Your task to perform on an android device: open app "Google Play Music" (install if not already installed) Image 0: 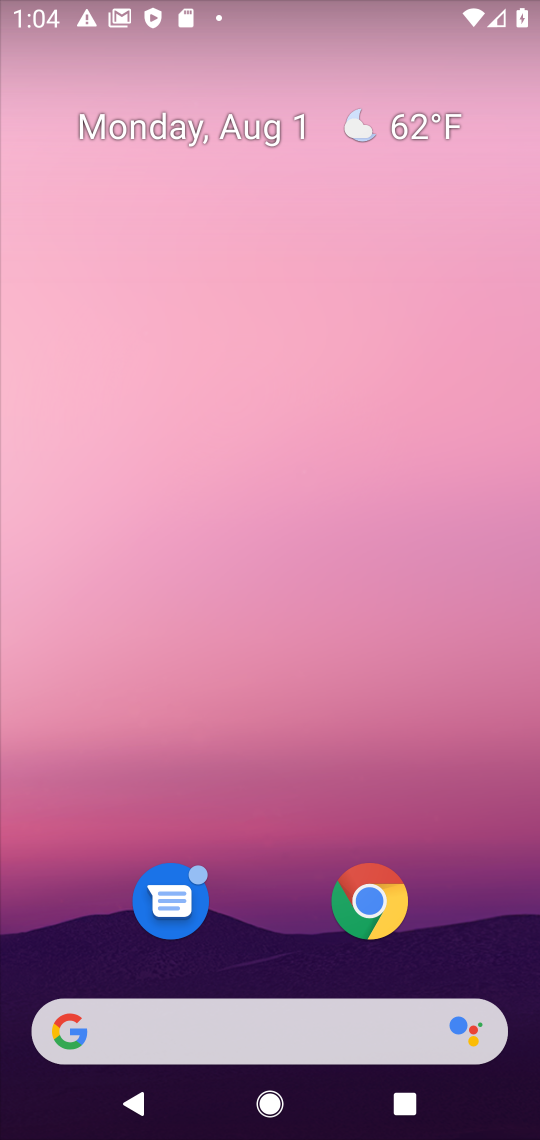
Step 0: drag from (286, 1030) to (272, 193)
Your task to perform on an android device: open app "Google Play Music" (install if not already installed) Image 1: 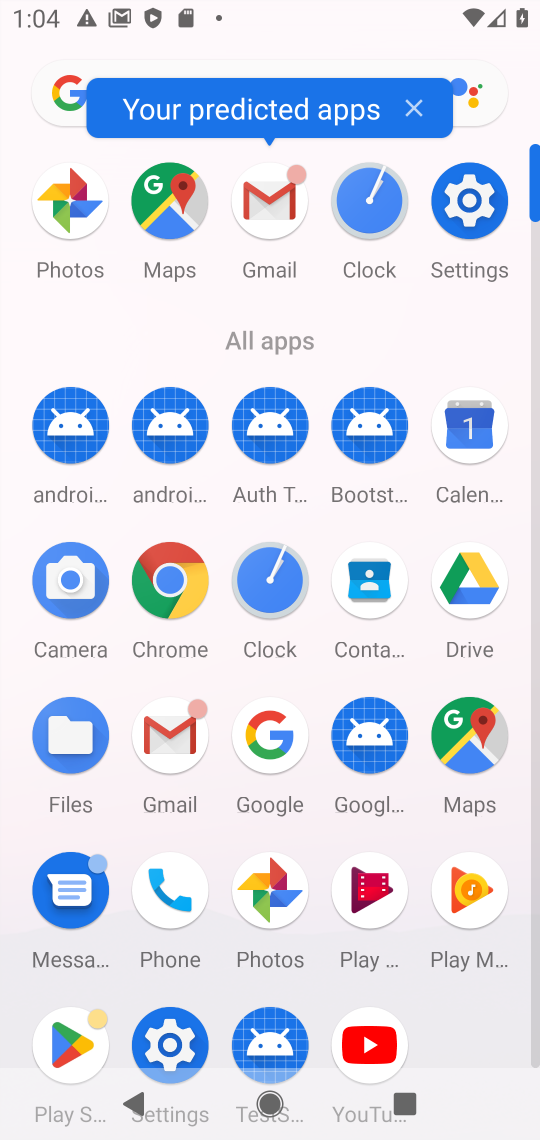
Step 1: click (84, 1043)
Your task to perform on an android device: open app "Google Play Music" (install if not already installed) Image 2: 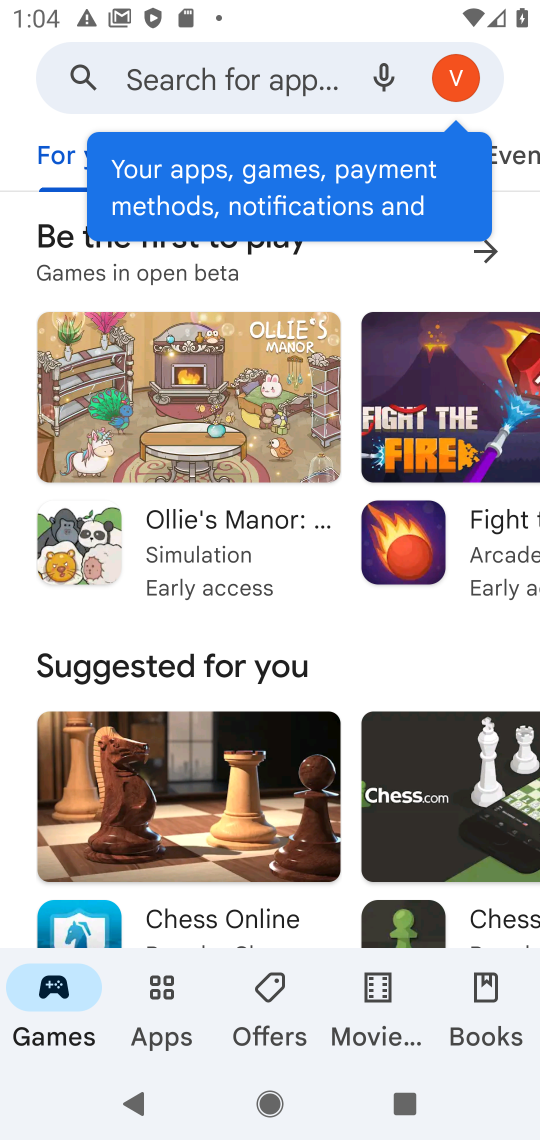
Step 2: click (249, 79)
Your task to perform on an android device: open app "Google Play Music" (install if not already installed) Image 3: 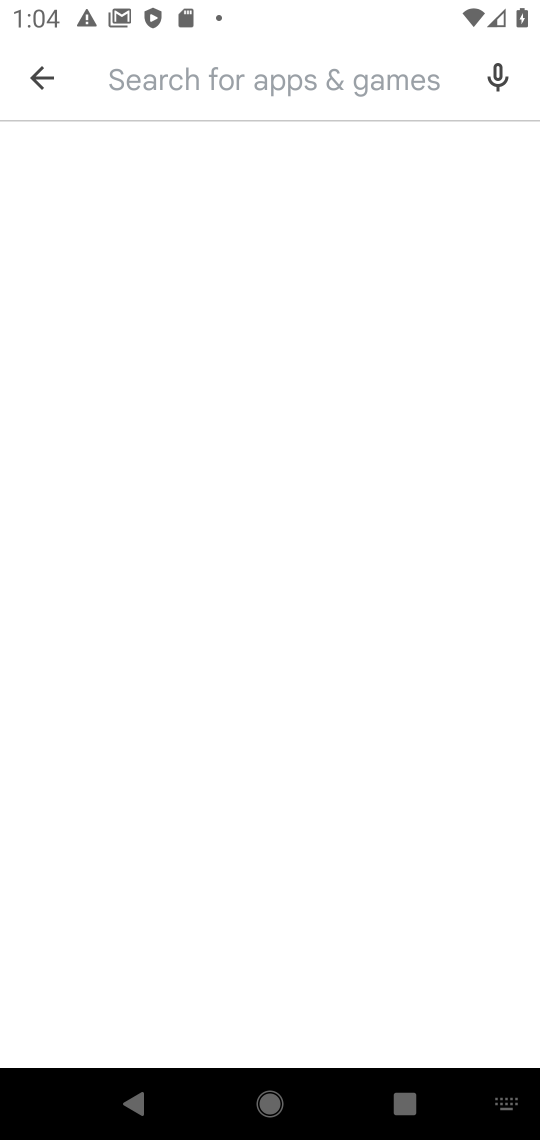
Step 3: type "Google Play Music"
Your task to perform on an android device: open app "Google Play Music" (install if not already installed) Image 4: 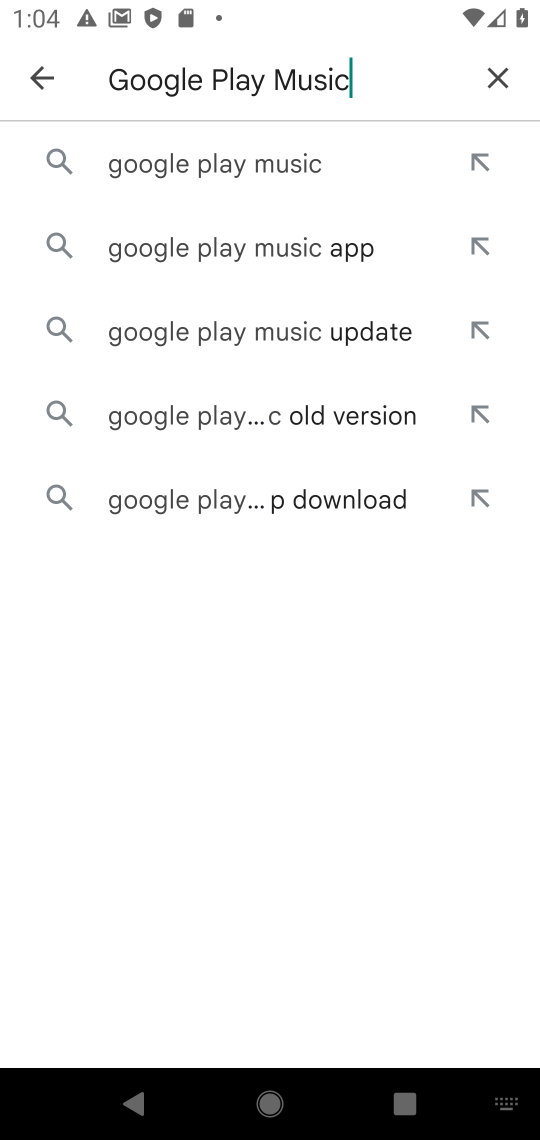
Step 4: click (162, 153)
Your task to perform on an android device: open app "Google Play Music" (install if not already installed) Image 5: 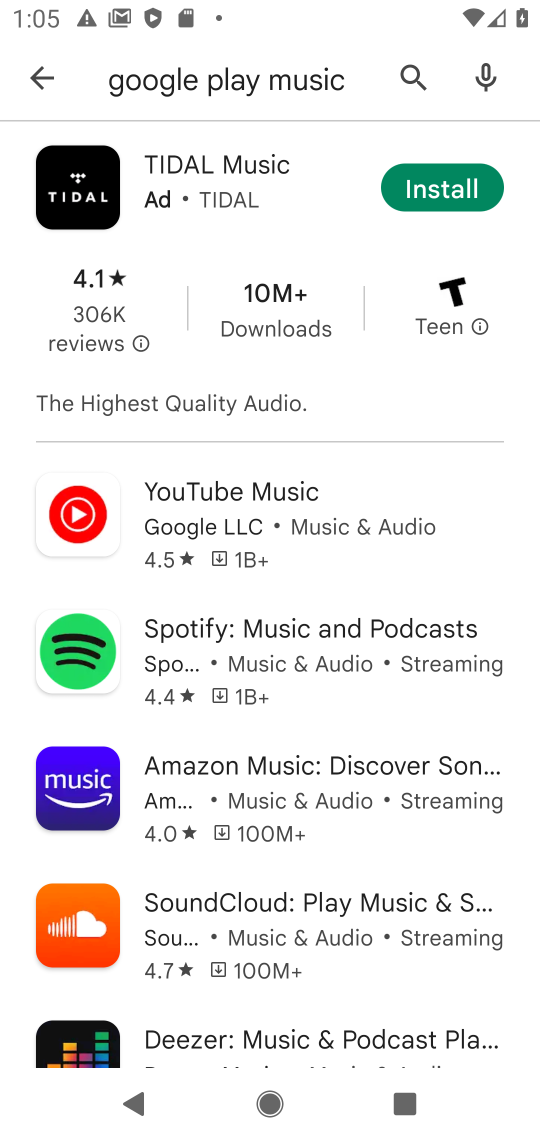
Step 5: click (178, 493)
Your task to perform on an android device: open app "Google Play Music" (install if not already installed) Image 6: 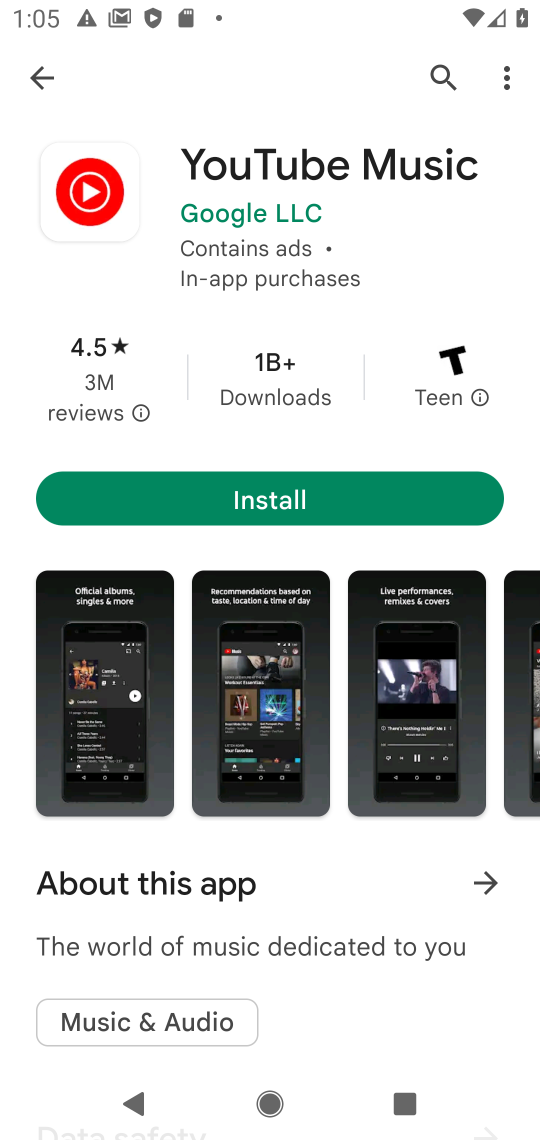
Step 6: click (231, 505)
Your task to perform on an android device: open app "Google Play Music" (install if not already installed) Image 7: 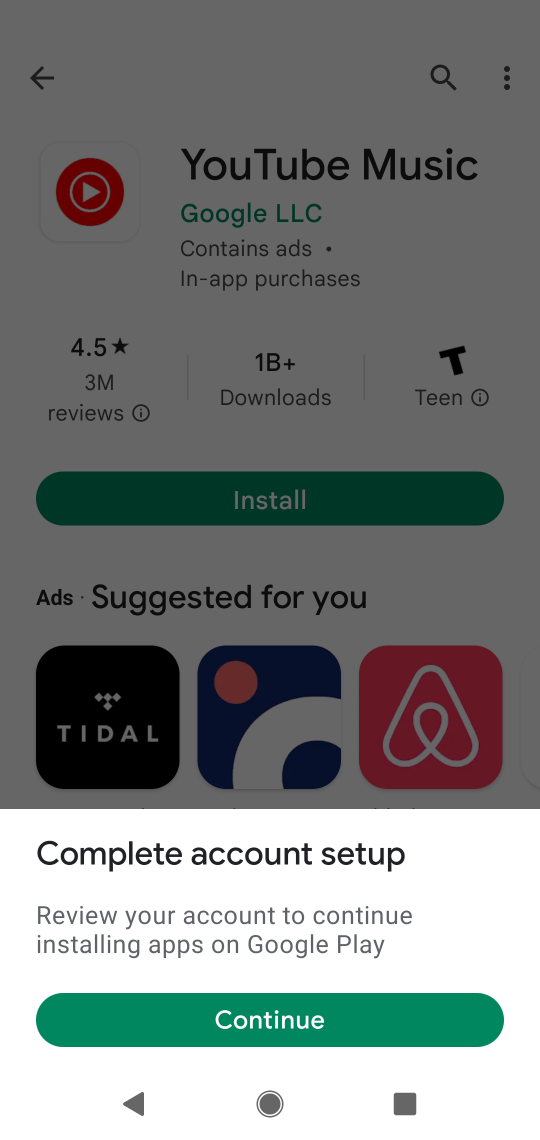
Step 7: click (128, 1002)
Your task to perform on an android device: open app "Google Play Music" (install if not already installed) Image 8: 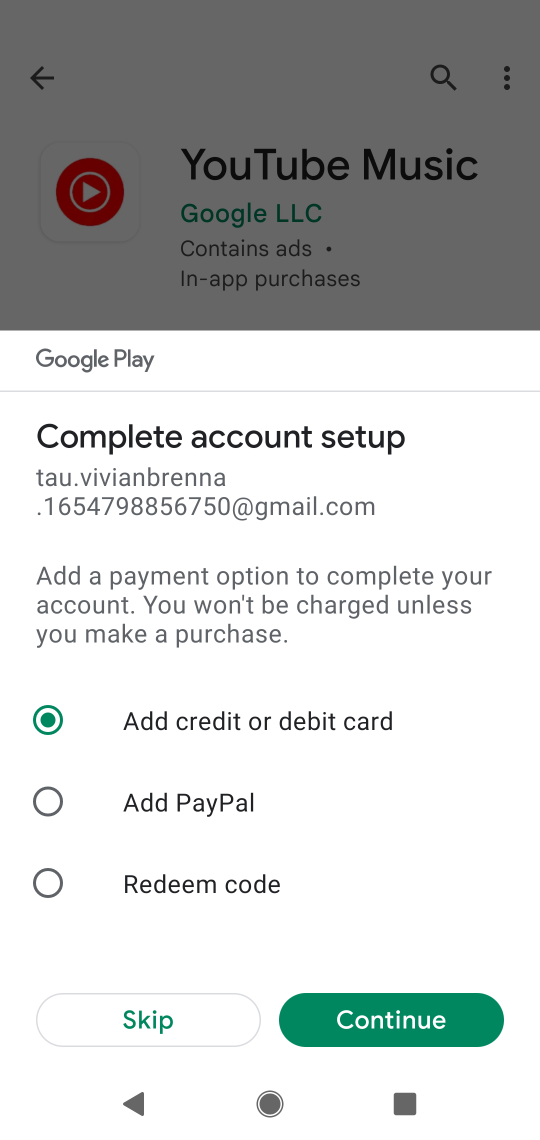
Step 8: click (164, 1026)
Your task to perform on an android device: open app "Google Play Music" (install if not already installed) Image 9: 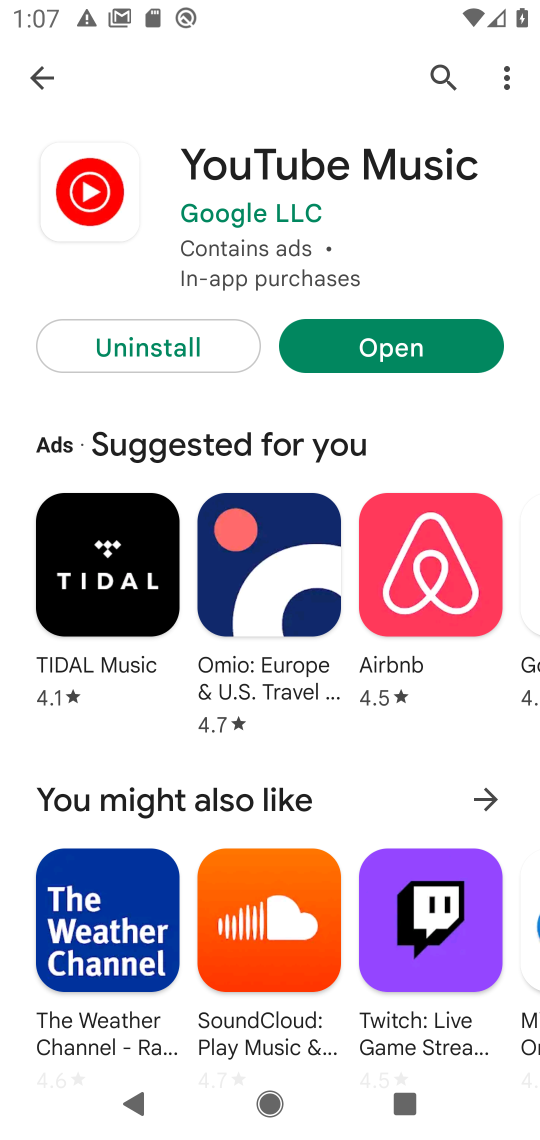
Step 9: click (385, 354)
Your task to perform on an android device: open app "Google Play Music" (install if not already installed) Image 10: 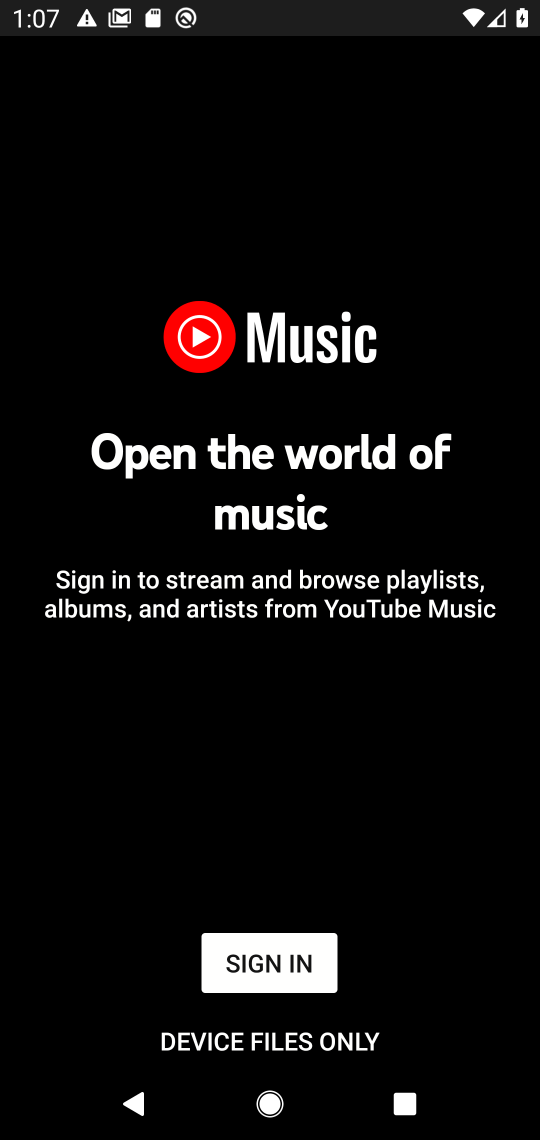
Step 10: task complete